Your task to perform on an android device: What is the news today? Image 0: 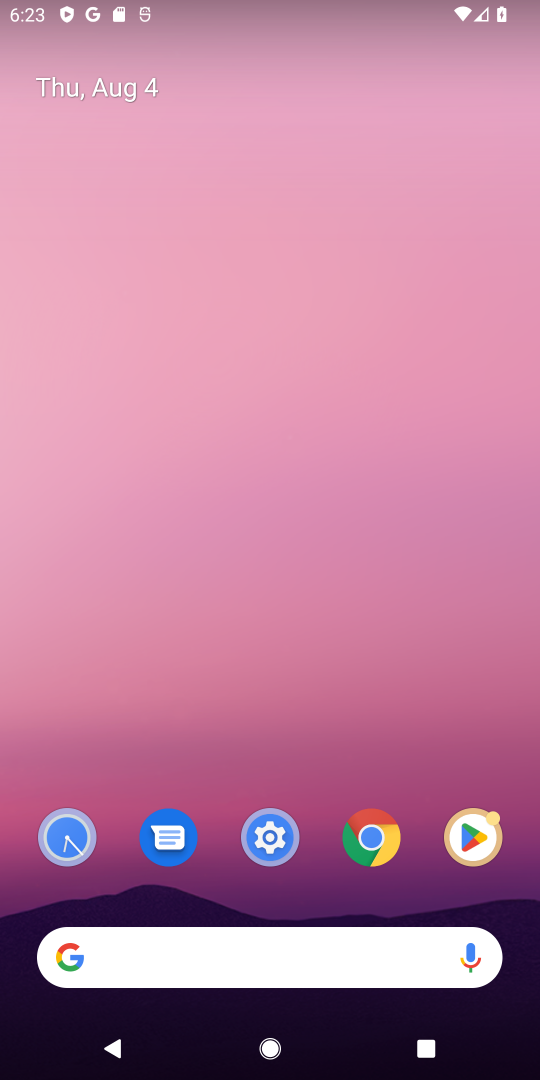
Step 0: press home button
Your task to perform on an android device: What is the news today? Image 1: 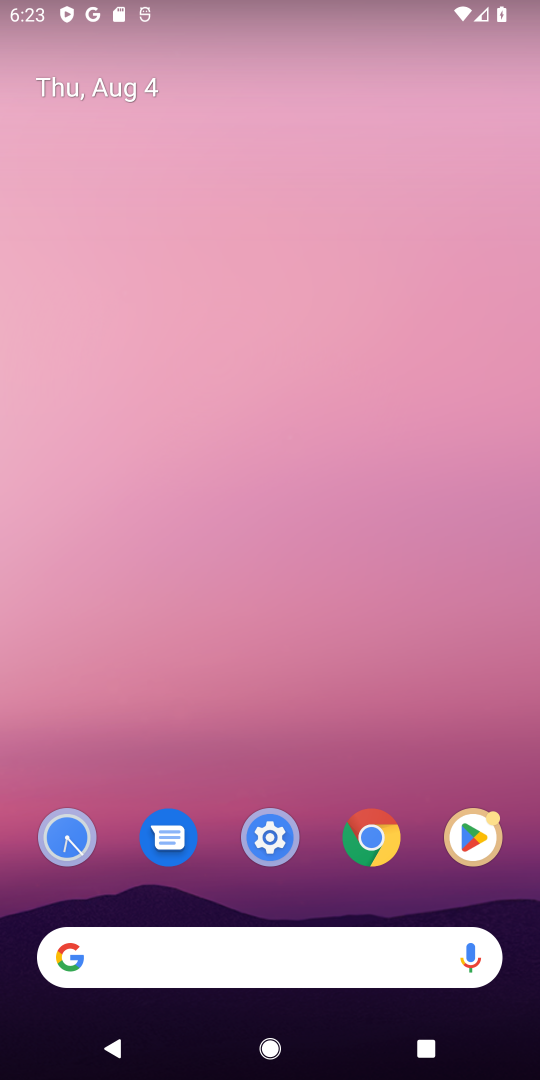
Step 1: task complete